Your task to perform on an android device: turn off notifications settings in the gmail app Image 0: 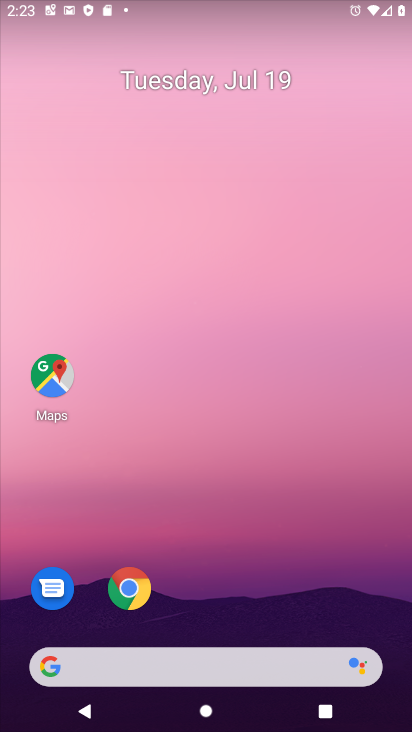
Step 0: drag from (379, 620) to (200, 84)
Your task to perform on an android device: turn off notifications settings in the gmail app Image 1: 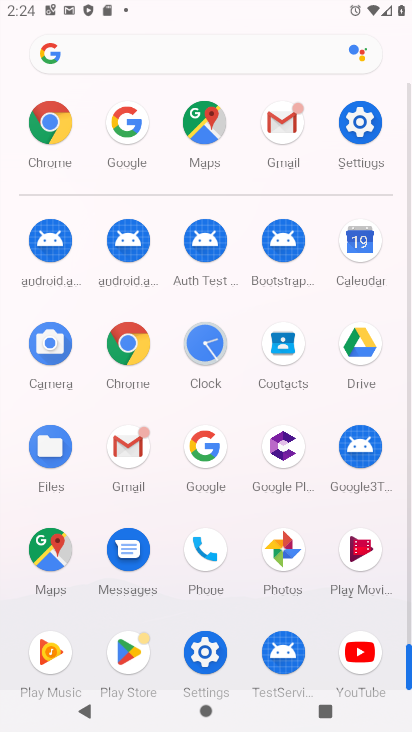
Step 1: click (107, 447)
Your task to perform on an android device: turn off notifications settings in the gmail app Image 2: 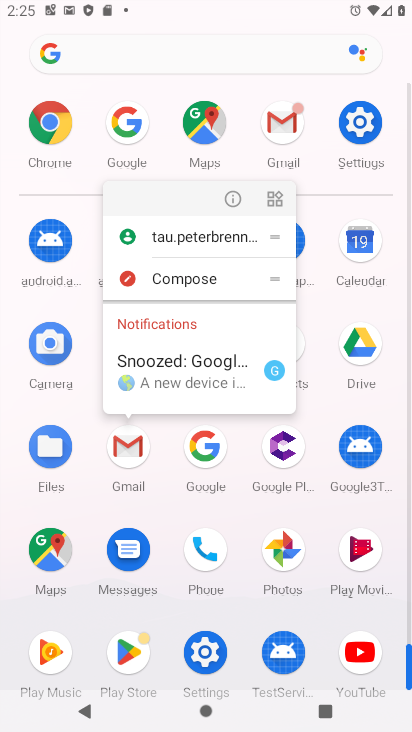
Step 2: click (117, 454)
Your task to perform on an android device: turn off notifications settings in the gmail app Image 3: 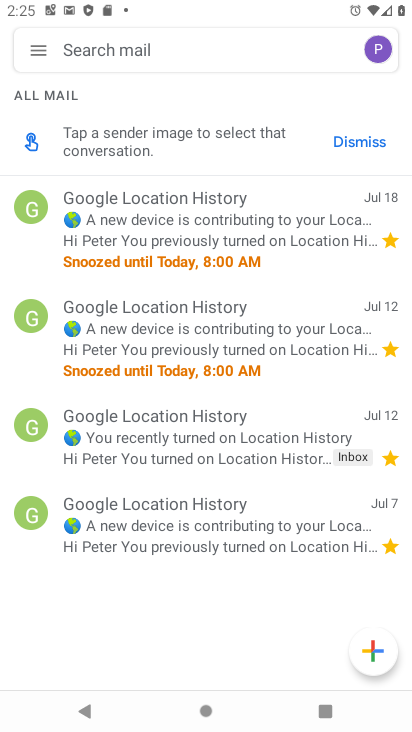
Step 3: click (42, 50)
Your task to perform on an android device: turn off notifications settings in the gmail app Image 4: 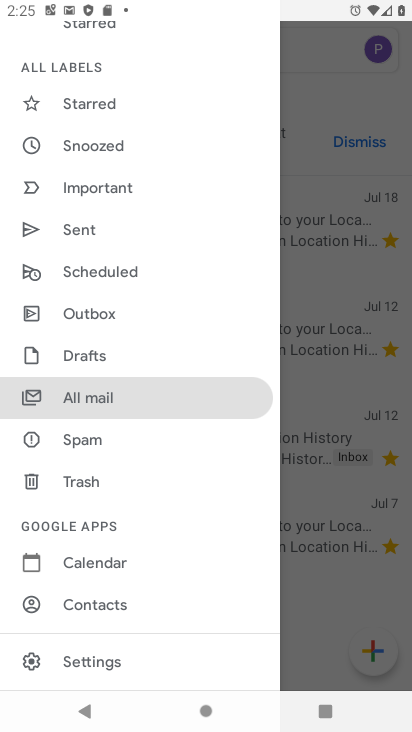
Step 4: click (95, 650)
Your task to perform on an android device: turn off notifications settings in the gmail app Image 5: 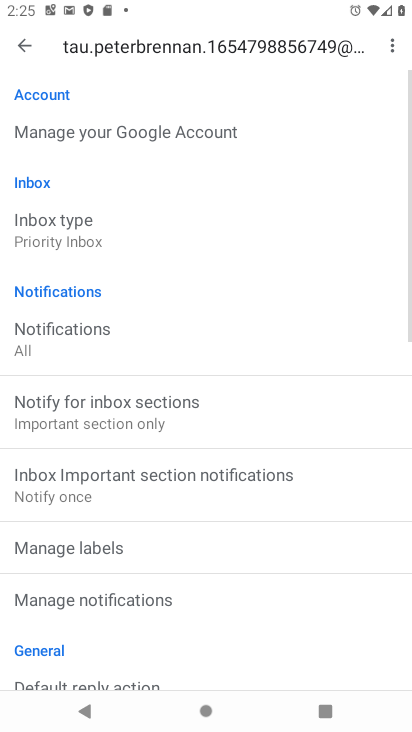
Step 5: click (108, 341)
Your task to perform on an android device: turn off notifications settings in the gmail app Image 6: 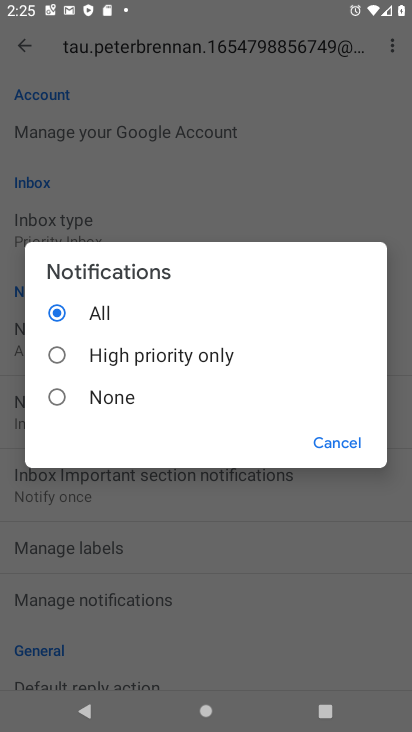
Step 6: click (99, 393)
Your task to perform on an android device: turn off notifications settings in the gmail app Image 7: 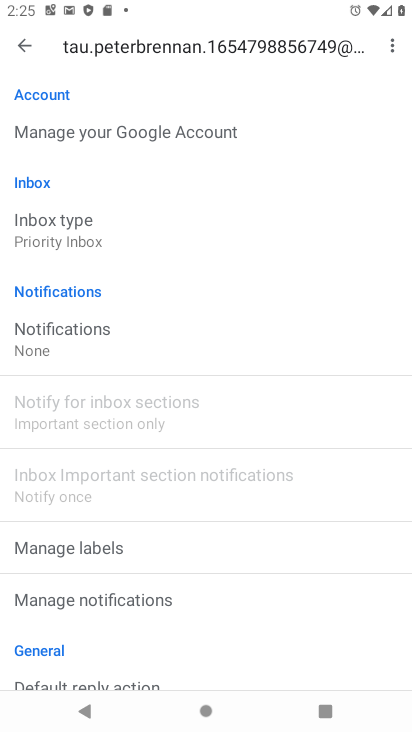
Step 7: task complete